Your task to perform on an android device: snooze an email in the gmail app Image 0: 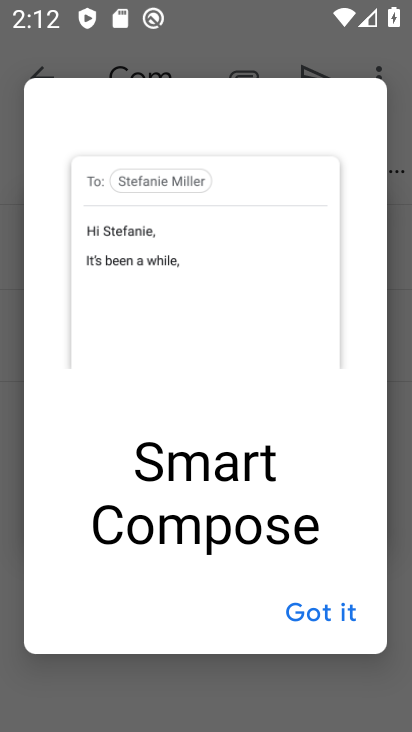
Step 0: press back button
Your task to perform on an android device: snooze an email in the gmail app Image 1: 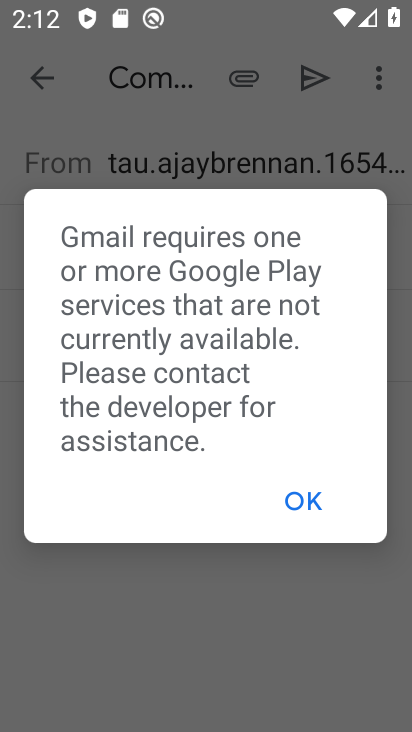
Step 1: click (307, 502)
Your task to perform on an android device: snooze an email in the gmail app Image 2: 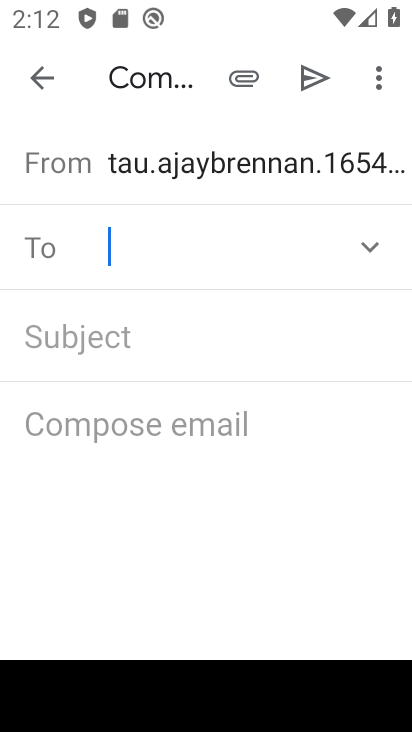
Step 2: press home button
Your task to perform on an android device: snooze an email in the gmail app Image 3: 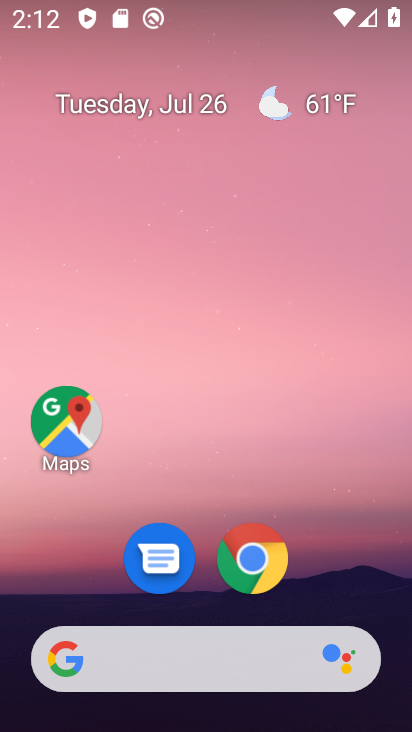
Step 3: drag from (105, 567) to (261, 0)
Your task to perform on an android device: snooze an email in the gmail app Image 4: 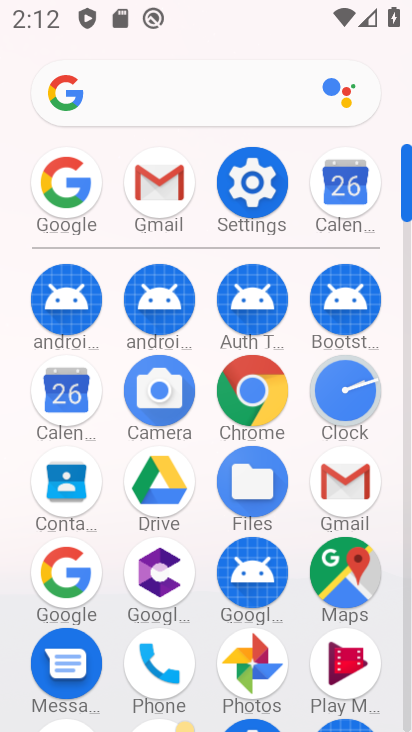
Step 4: click (166, 170)
Your task to perform on an android device: snooze an email in the gmail app Image 5: 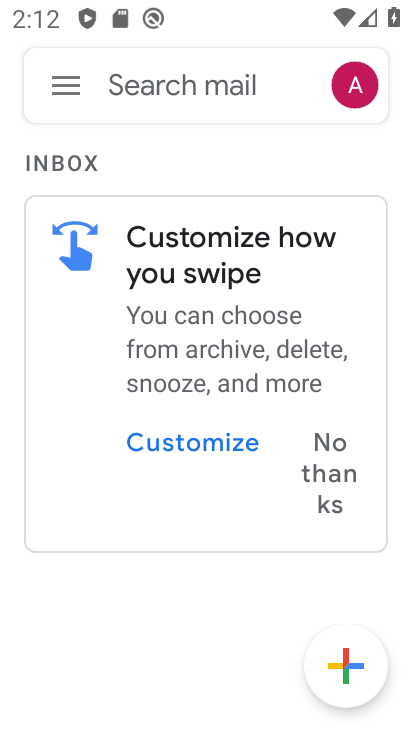
Step 5: click (73, 89)
Your task to perform on an android device: snooze an email in the gmail app Image 6: 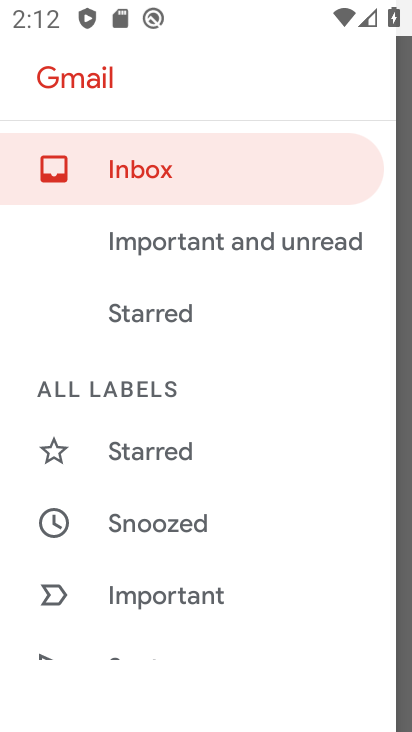
Step 6: drag from (208, 604) to (305, 99)
Your task to perform on an android device: snooze an email in the gmail app Image 7: 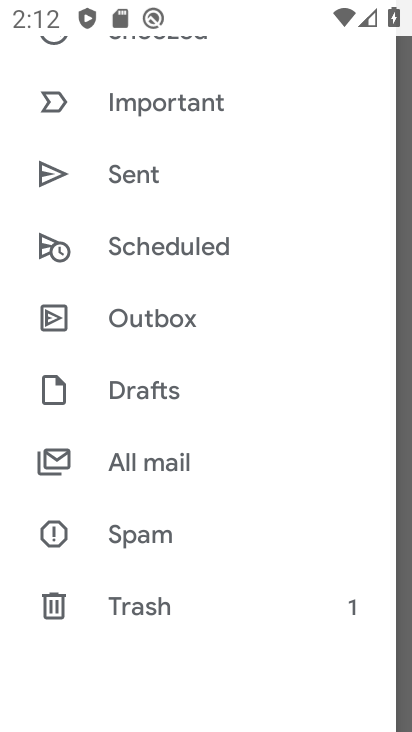
Step 7: click (148, 458)
Your task to perform on an android device: snooze an email in the gmail app Image 8: 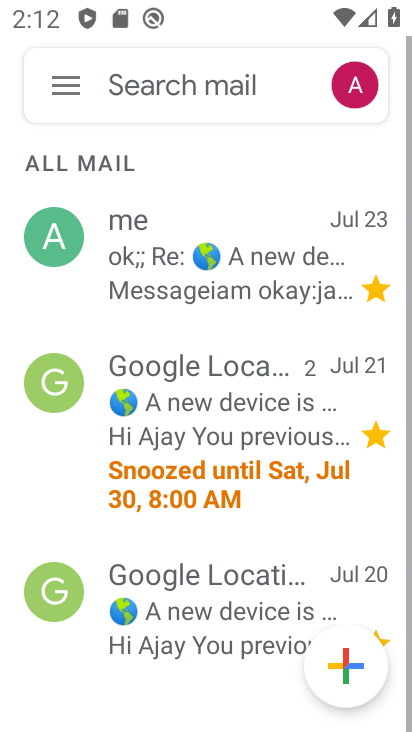
Step 8: click (249, 255)
Your task to perform on an android device: snooze an email in the gmail app Image 9: 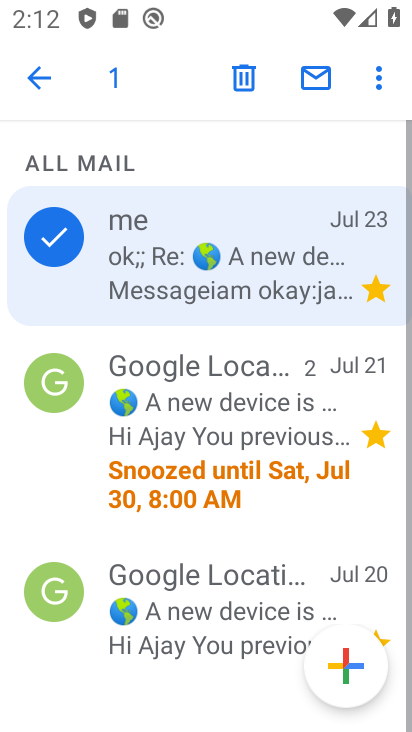
Step 9: click (383, 75)
Your task to perform on an android device: snooze an email in the gmail app Image 10: 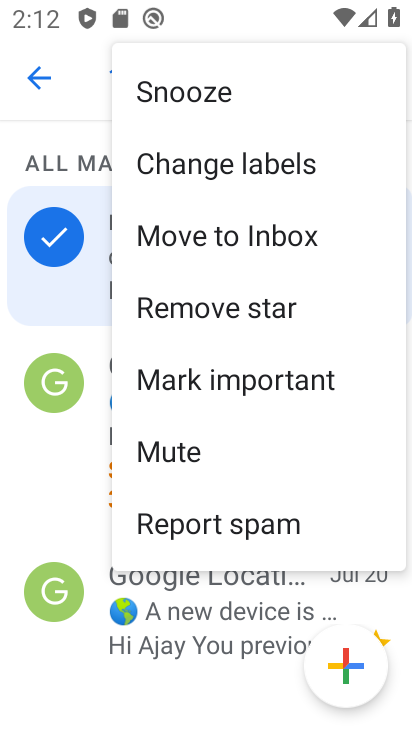
Step 10: click (205, 93)
Your task to perform on an android device: snooze an email in the gmail app Image 11: 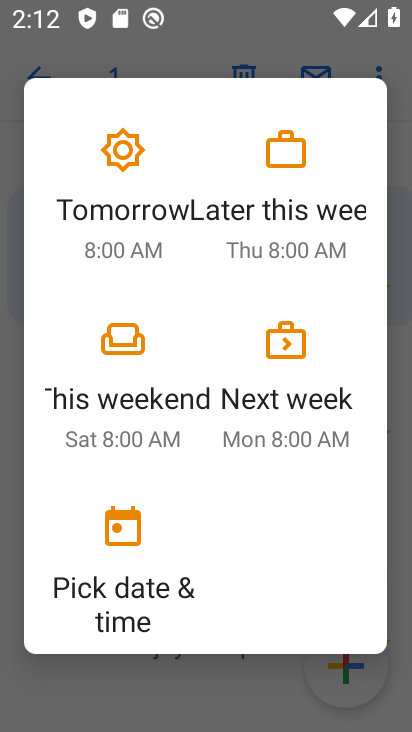
Step 11: click (132, 162)
Your task to perform on an android device: snooze an email in the gmail app Image 12: 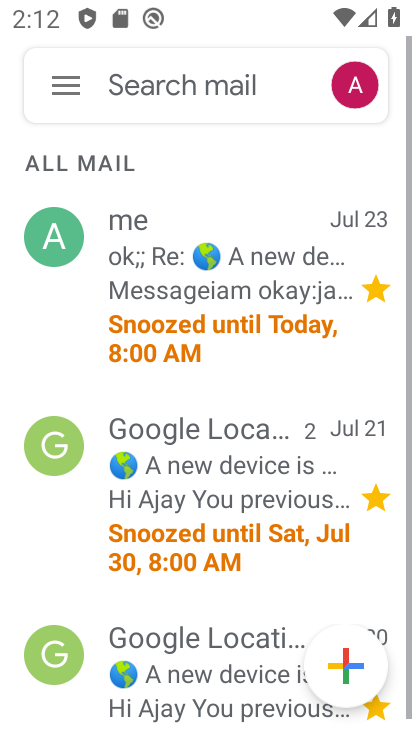
Step 12: task complete